Your task to perform on an android device: open the mobile data screen to see how much data has been used Image 0: 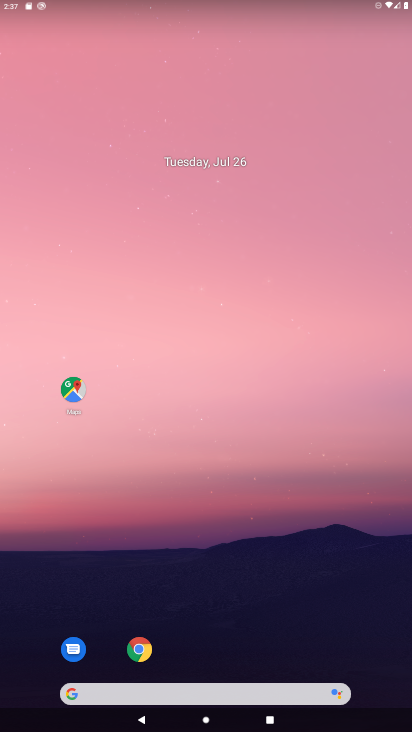
Step 0: drag from (216, 663) to (190, 187)
Your task to perform on an android device: open the mobile data screen to see how much data has been used Image 1: 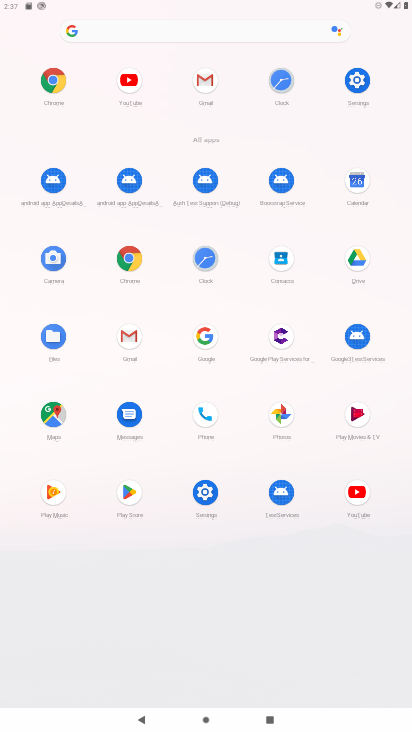
Step 1: click (366, 77)
Your task to perform on an android device: open the mobile data screen to see how much data has been used Image 2: 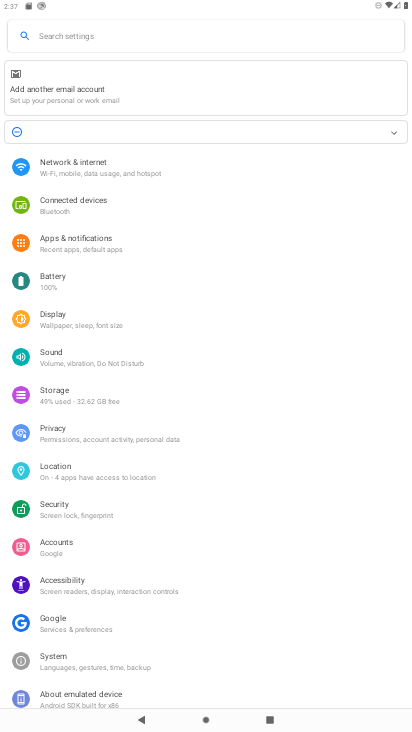
Step 2: click (70, 167)
Your task to perform on an android device: open the mobile data screen to see how much data has been used Image 3: 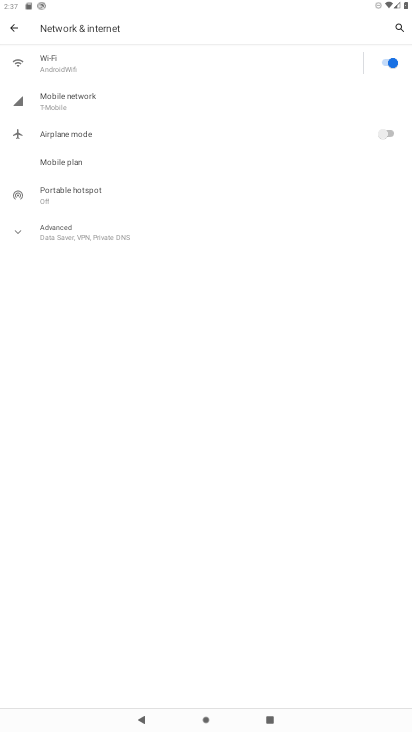
Step 3: task complete